Your task to perform on an android device: toggle javascript in the chrome app Image 0: 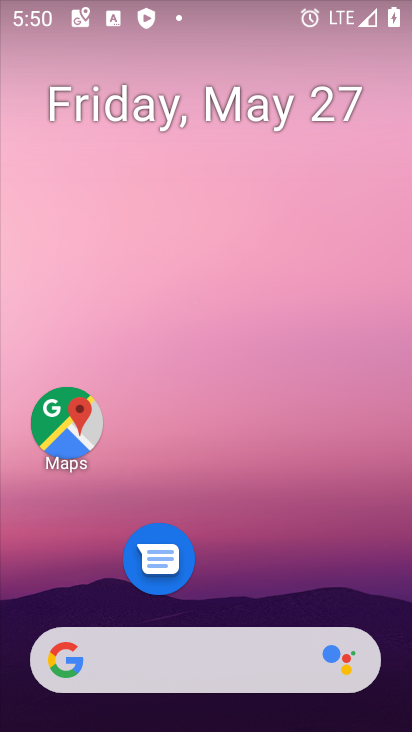
Step 0: drag from (255, 655) to (309, 3)
Your task to perform on an android device: toggle javascript in the chrome app Image 1: 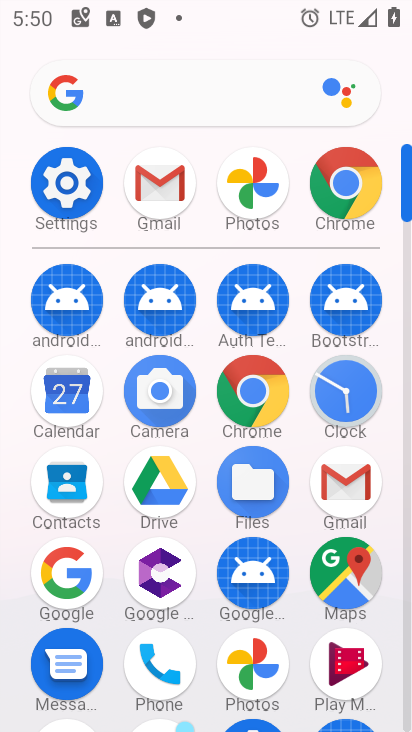
Step 1: click (266, 395)
Your task to perform on an android device: toggle javascript in the chrome app Image 2: 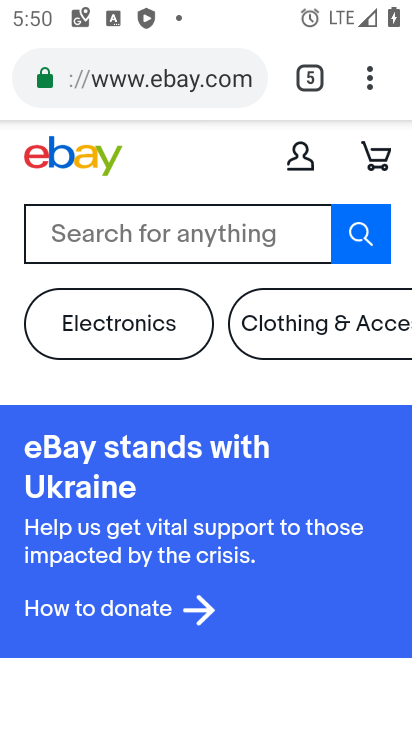
Step 2: drag from (366, 76) to (191, 639)
Your task to perform on an android device: toggle javascript in the chrome app Image 3: 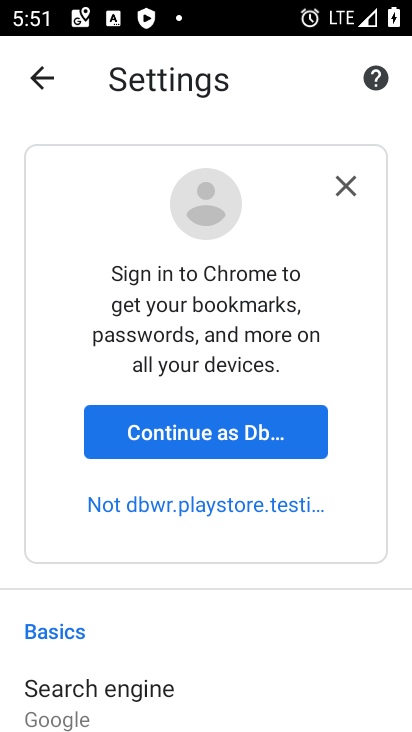
Step 3: drag from (343, 608) to (343, 25)
Your task to perform on an android device: toggle javascript in the chrome app Image 4: 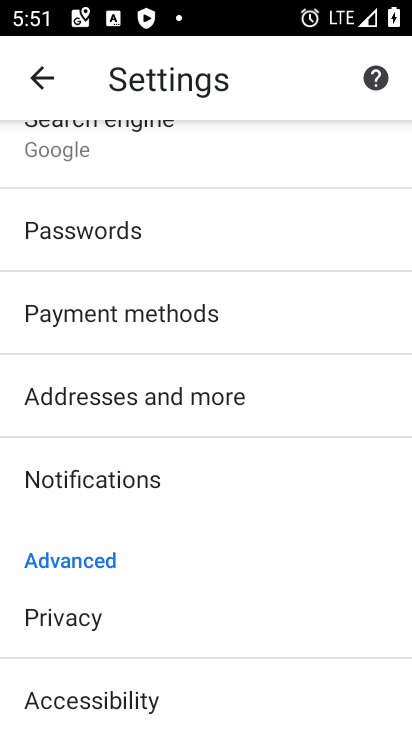
Step 4: drag from (283, 654) to (326, 12)
Your task to perform on an android device: toggle javascript in the chrome app Image 5: 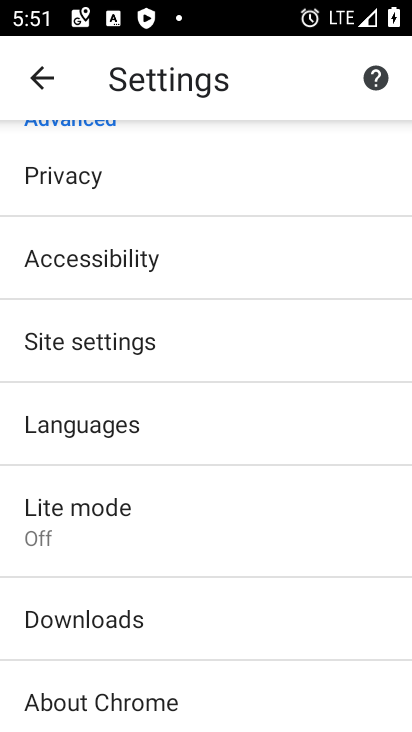
Step 5: click (168, 348)
Your task to perform on an android device: toggle javascript in the chrome app Image 6: 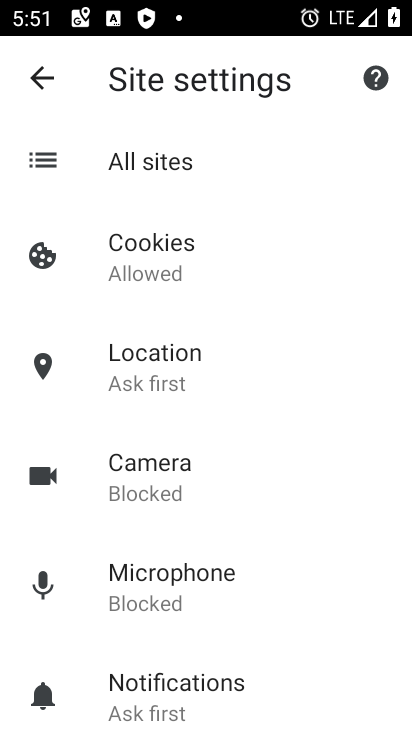
Step 6: drag from (193, 650) to (233, 4)
Your task to perform on an android device: toggle javascript in the chrome app Image 7: 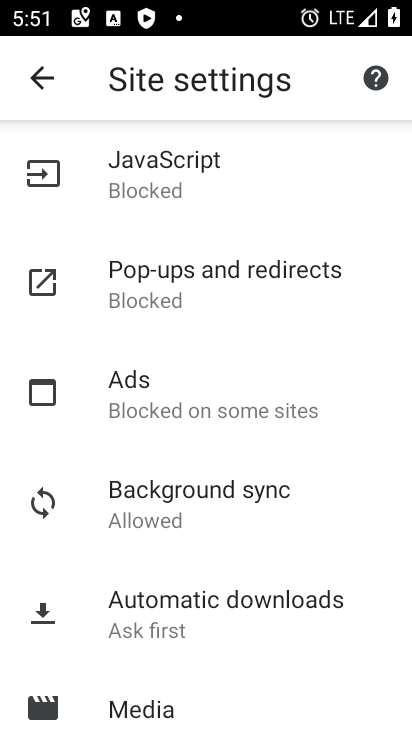
Step 7: click (200, 181)
Your task to perform on an android device: toggle javascript in the chrome app Image 8: 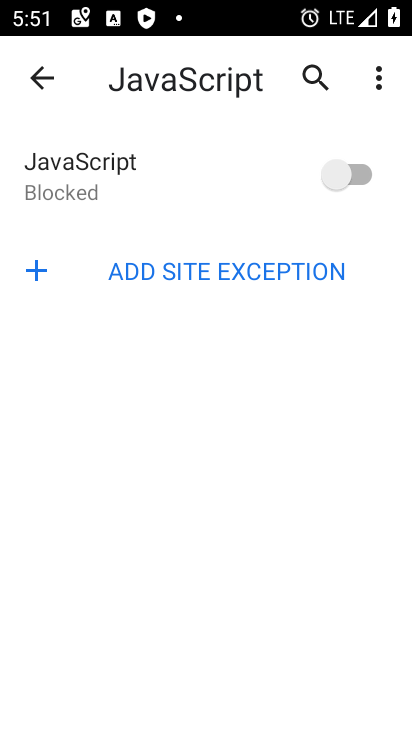
Step 8: click (359, 169)
Your task to perform on an android device: toggle javascript in the chrome app Image 9: 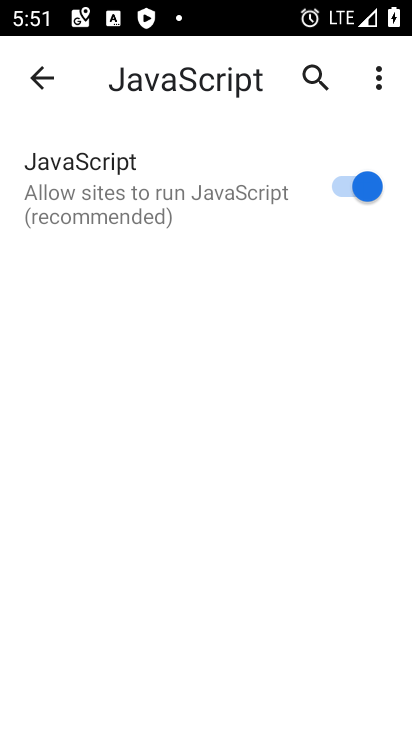
Step 9: task complete